Your task to perform on an android device: Go to settings Image 0: 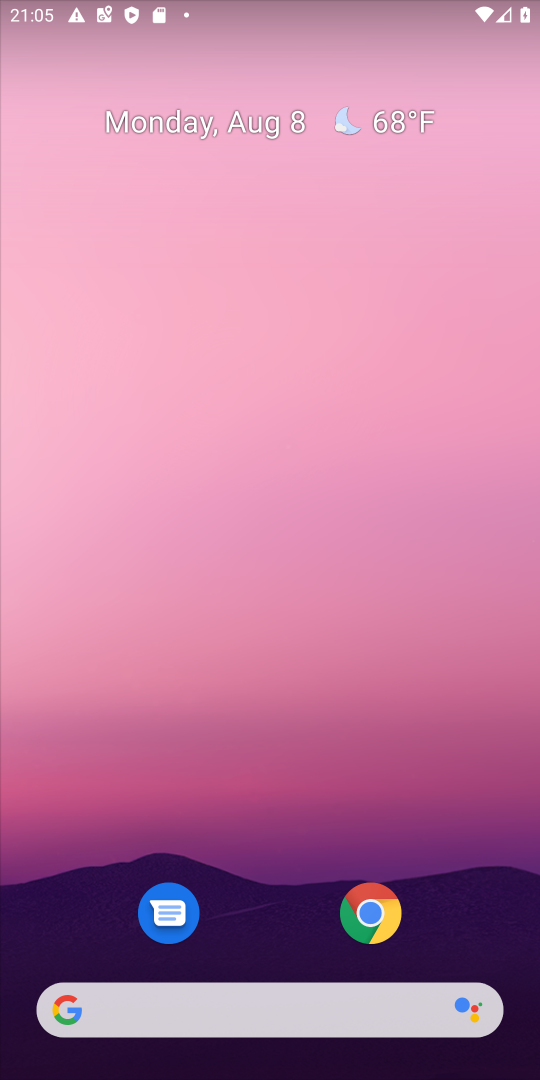
Step 0: drag from (268, 957) to (236, 133)
Your task to perform on an android device: Go to settings Image 1: 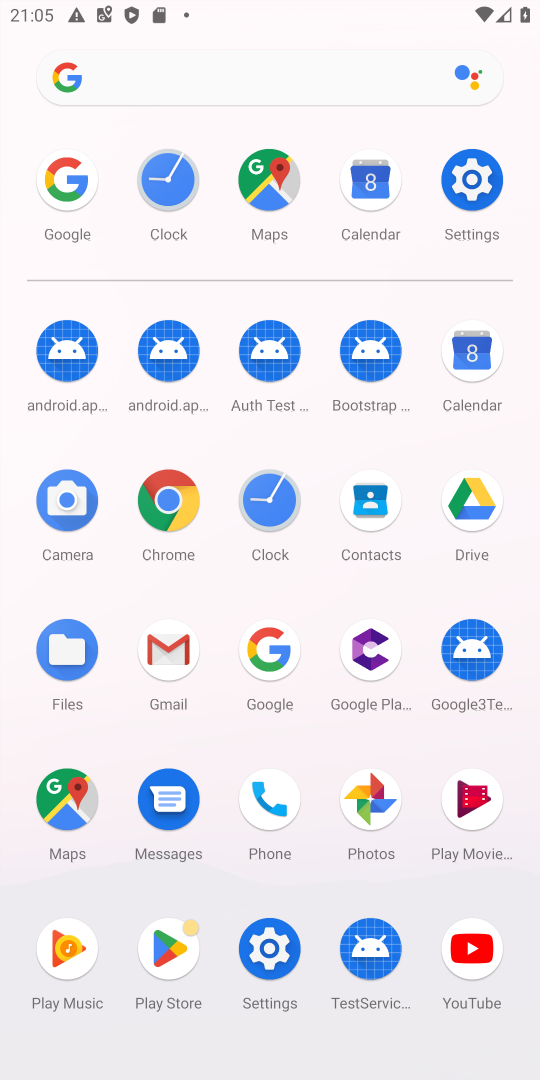
Step 1: click (470, 181)
Your task to perform on an android device: Go to settings Image 2: 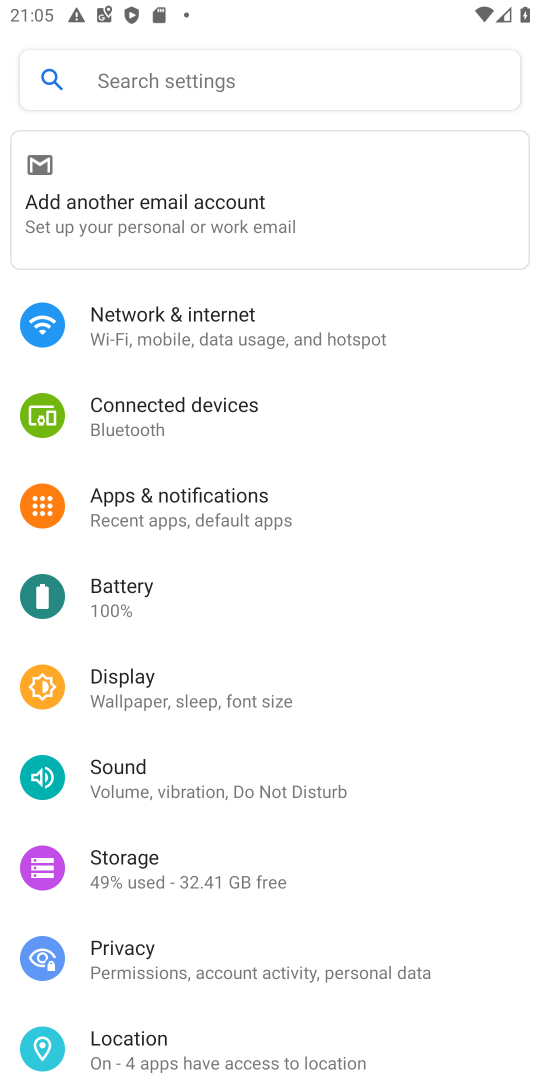
Step 2: task complete